Your task to perform on an android device: Go to battery settings Image 0: 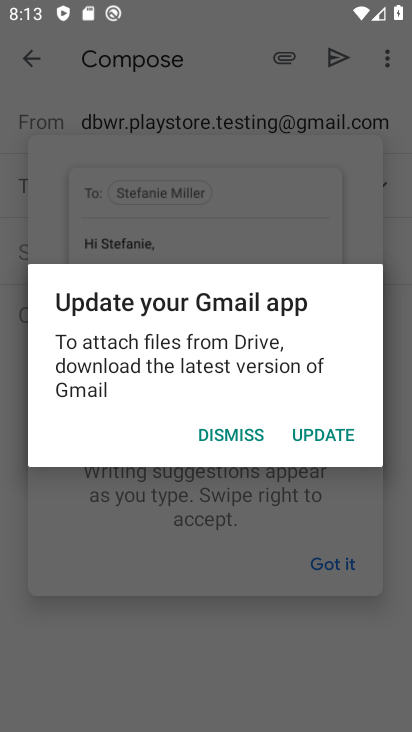
Step 0: press home button
Your task to perform on an android device: Go to battery settings Image 1: 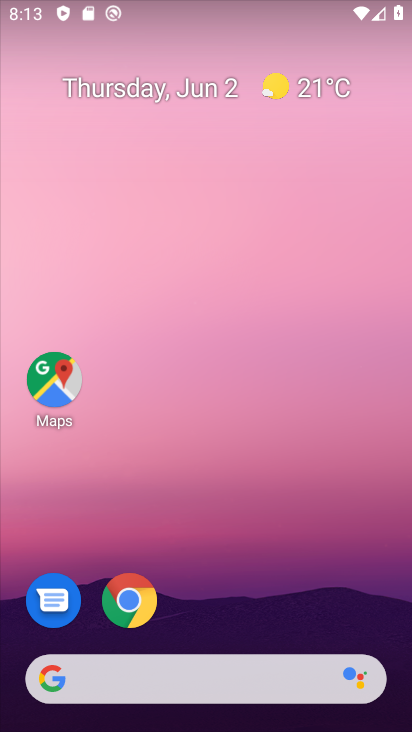
Step 1: drag from (181, 634) to (200, 140)
Your task to perform on an android device: Go to battery settings Image 2: 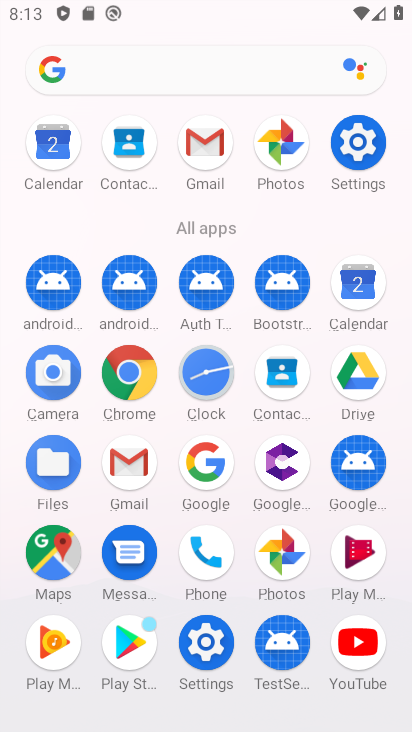
Step 2: click (359, 135)
Your task to perform on an android device: Go to battery settings Image 3: 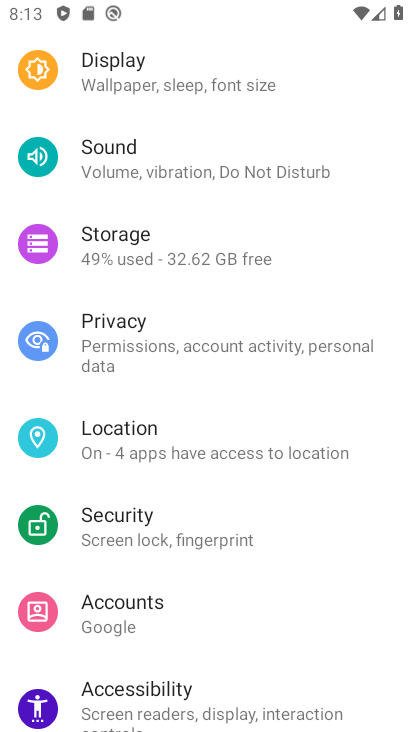
Step 3: drag from (168, 166) to (201, 468)
Your task to perform on an android device: Go to battery settings Image 4: 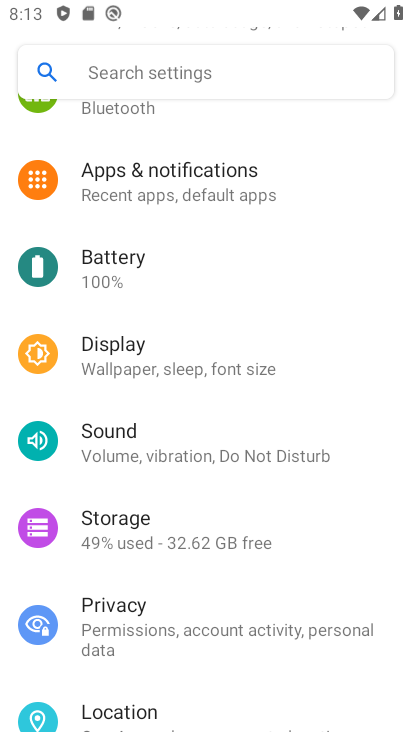
Step 4: click (164, 266)
Your task to perform on an android device: Go to battery settings Image 5: 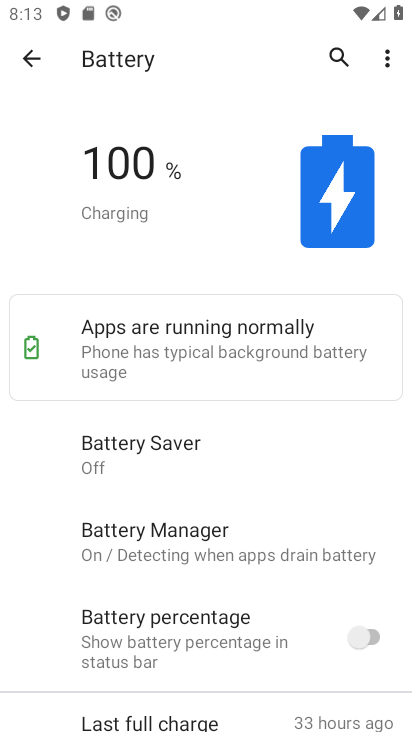
Step 5: task complete